Your task to perform on an android device: turn on sleep mode Image 0: 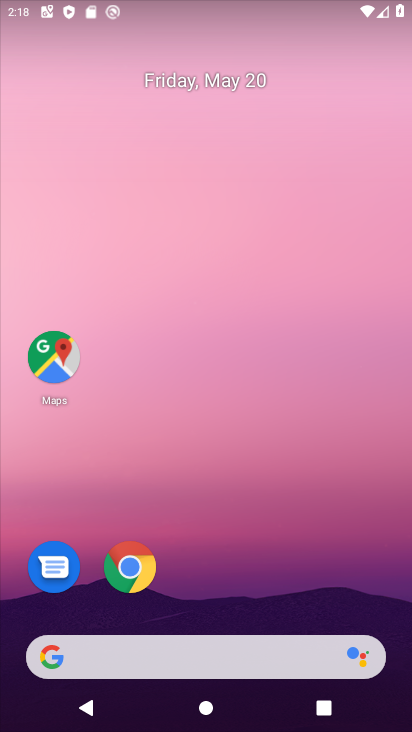
Step 0: drag from (238, 512) to (232, 43)
Your task to perform on an android device: turn on sleep mode Image 1: 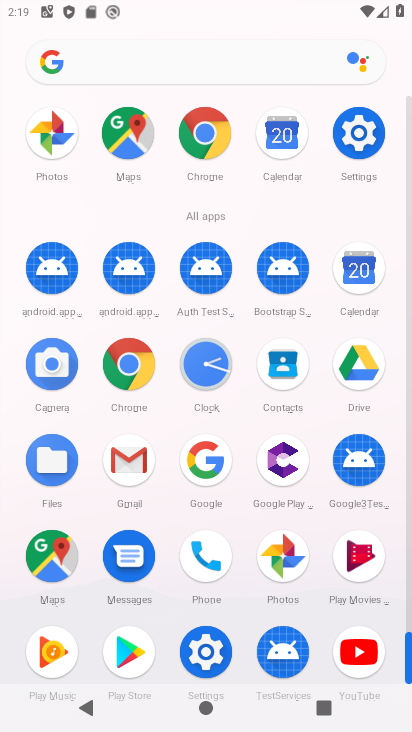
Step 1: click (203, 651)
Your task to perform on an android device: turn on sleep mode Image 2: 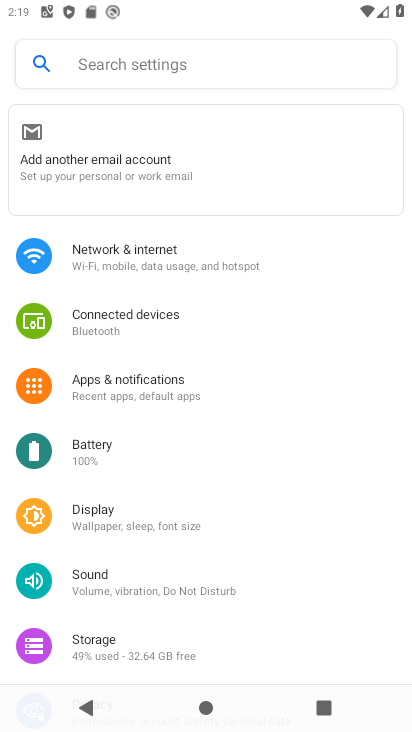
Step 2: click (129, 523)
Your task to perform on an android device: turn on sleep mode Image 3: 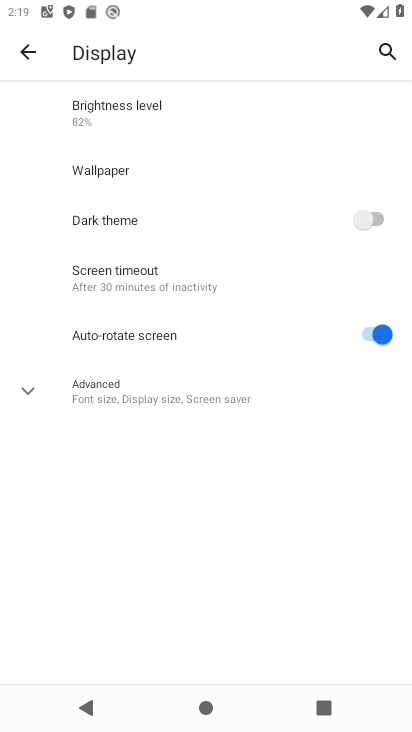
Step 3: click (31, 388)
Your task to perform on an android device: turn on sleep mode Image 4: 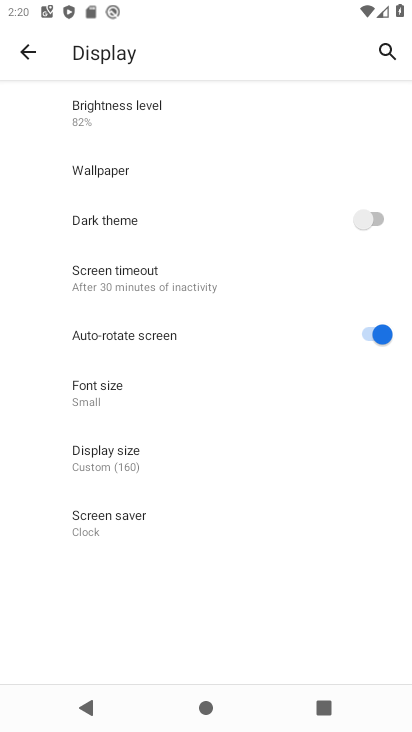
Step 4: task complete